Your task to perform on an android device: turn pop-ups on in chrome Image 0: 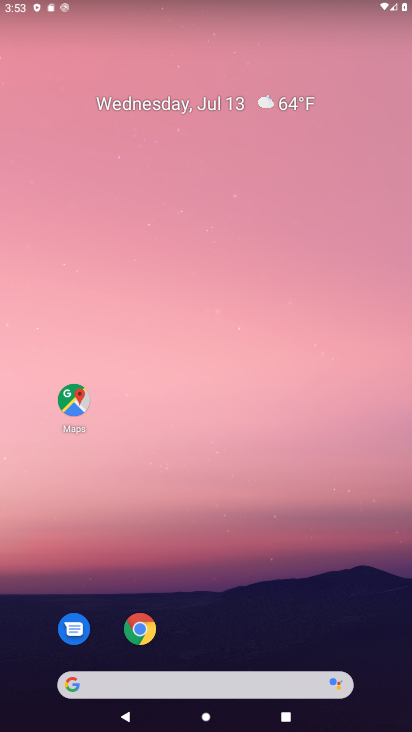
Step 0: click (133, 626)
Your task to perform on an android device: turn pop-ups on in chrome Image 1: 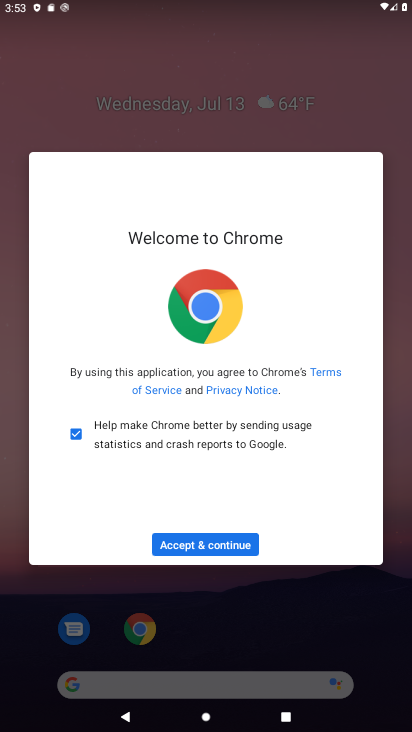
Step 1: click (214, 539)
Your task to perform on an android device: turn pop-ups on in chrome Image 2: 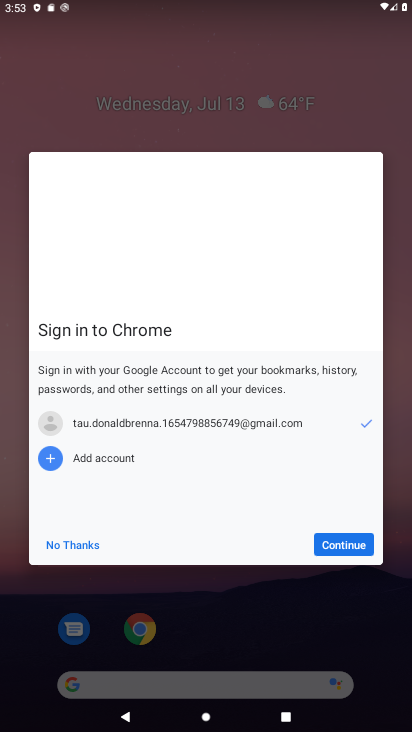
Step 2: click (336, 539)
Your task to perform on an android device: turn pop-ups on in chrome Image 3: 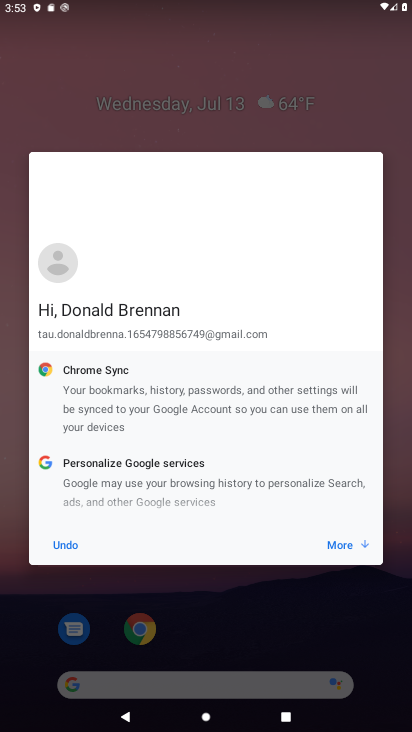
Step 3: click (336, 539)
Your task to perform on an android device: turn pop-ups on in chrome Image 4: 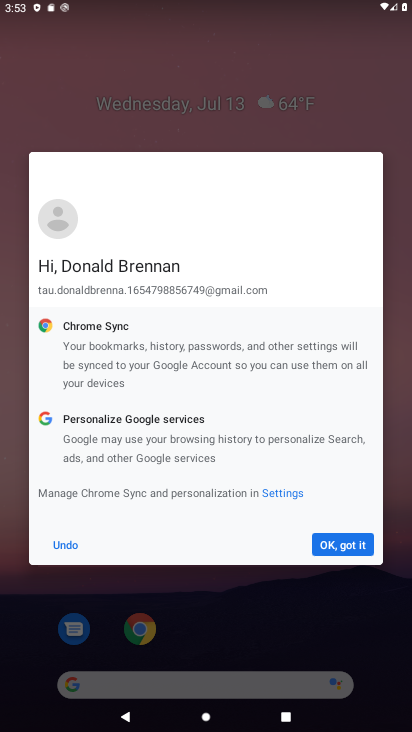
Step 4: click (336, 539)
Your task to perform on an android device: turn pop-ups on in chrome Image 5: 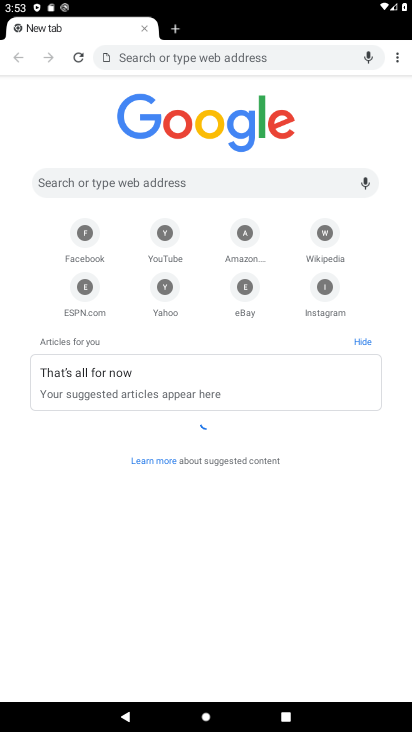
Step 5: click (397, 49)
Your task to perform on an android device: turn pop-ups on in chrome Image 6: 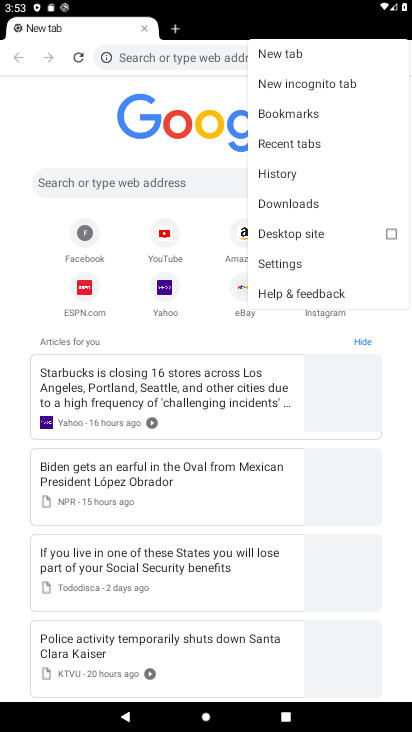
Step 6: click (279, 267)
Your task to perform on an android device: turn pop-ups on in chrome Image 7: 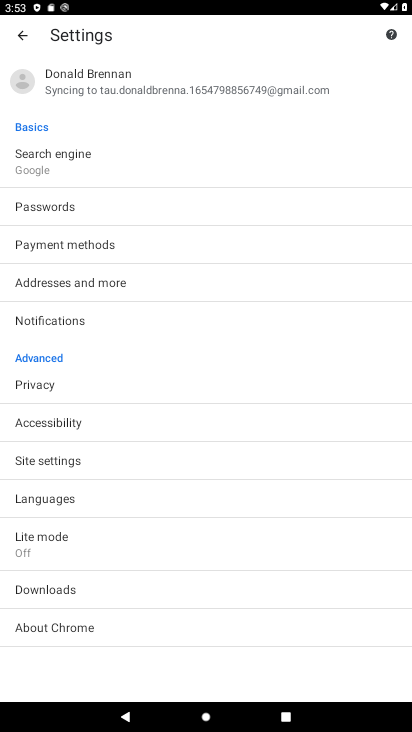
Step 7: click (117, 460)
Your task to perform on an android device: turn pop-ups on in chrome Image 8: 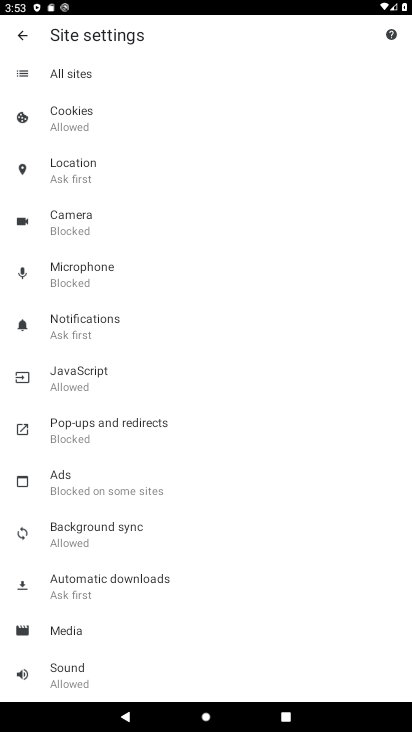
Step 8: click (122, 424)
Your task to perform on an android device: turn pop-ups on in chrome Image 9: 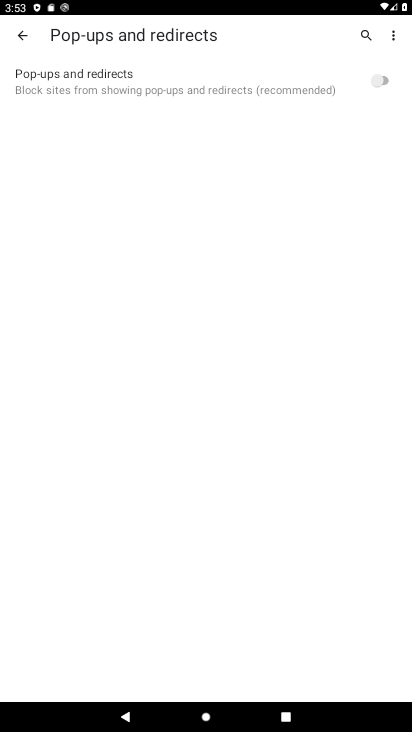
Step 9: click (376, 75)
Your task to perform on an android device: turn pop-ups on in chrome Image 10: 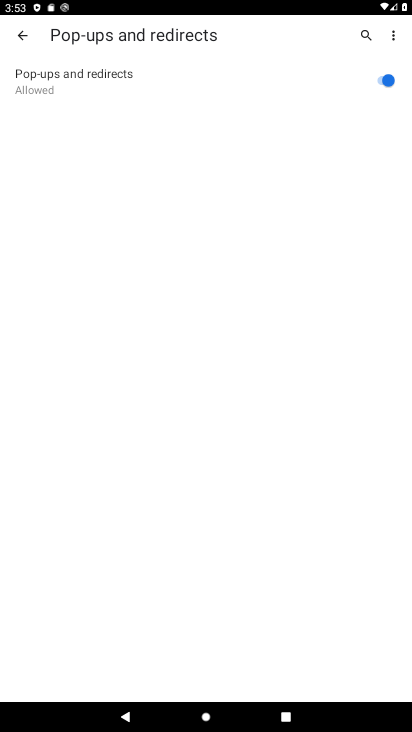
Step 10: task complete